Your task to perform on an android device: Go to network settings Image 0: 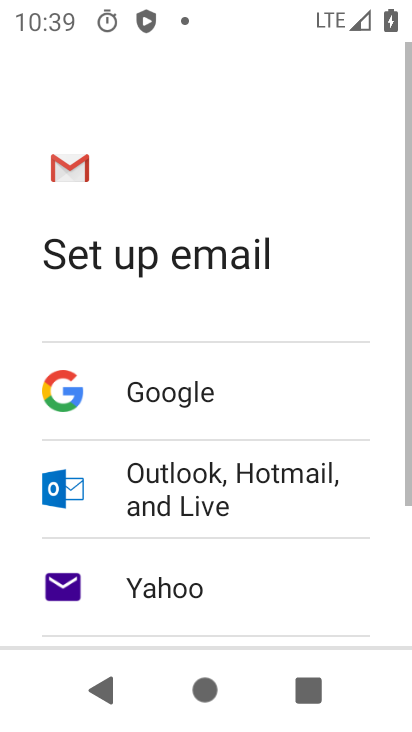
Step 0: press home button
Your task to perform on an android device: Go to network settings Image 1: 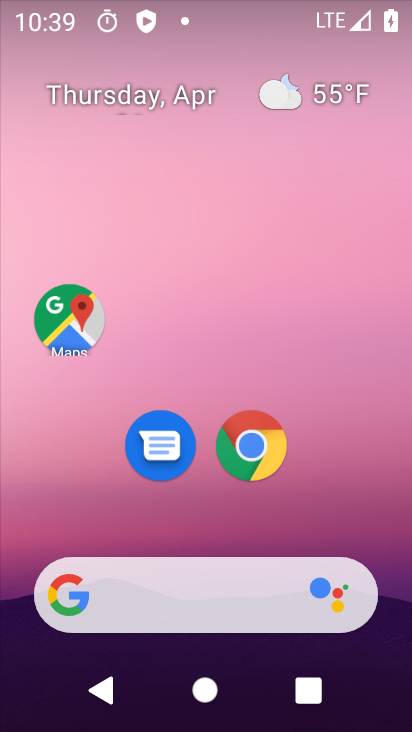
Step 1: drag from (388, 552) to (338, 8)
Your task to perform on an android device: Go to network settings Image 2: 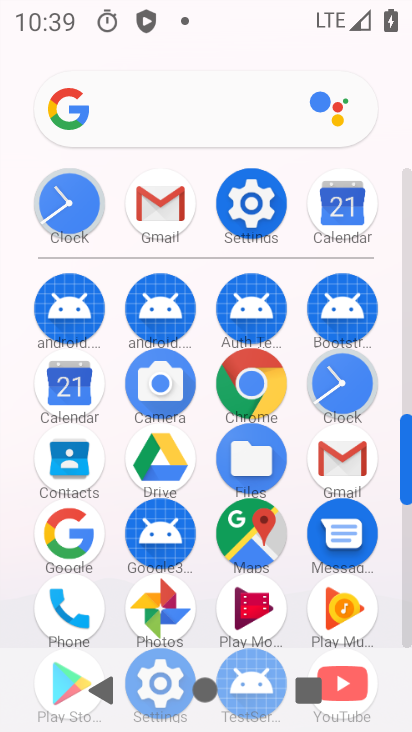
Step 2: click (250, 210)
Your task to perform on an android device: Go to network settings Image 3: 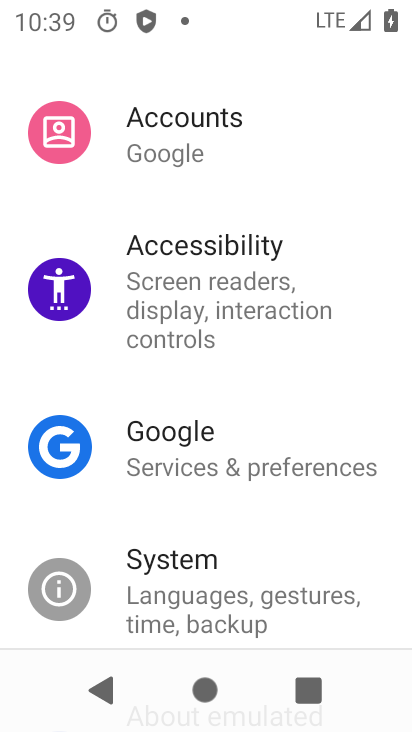
Step 3: drag from (358, 195) to (409, 578)
Your task to perform on an android device: Go to network settings Image 4: 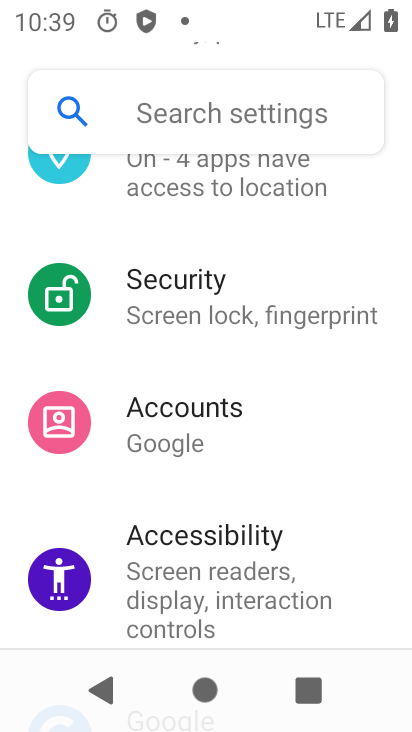
Step 4: drag from (382, 219) to (395, 617)
Your task to perform on an android device: Go to network settings Image 5: 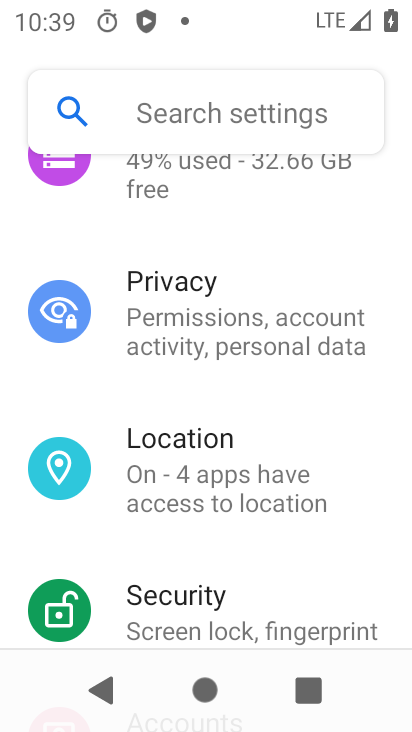
Step 5: drag from (316, 267) to (327, 663)
Your task to perform on an android device: Go to network settings Image 6: 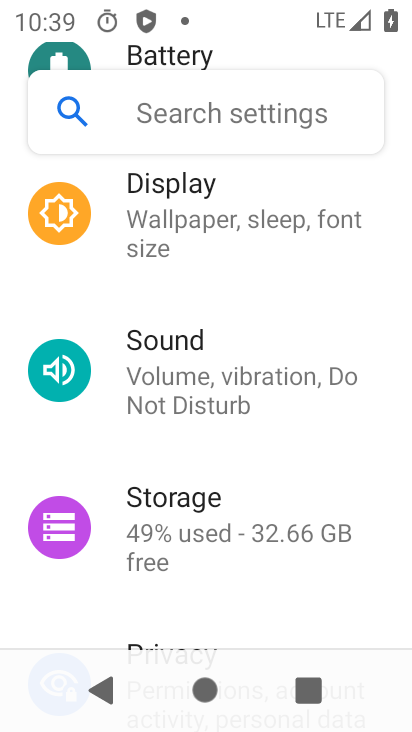
Step 6: drag from (306, 316) to (312, 643)
Your task to perform on an android device: Go to network settings Image 7: 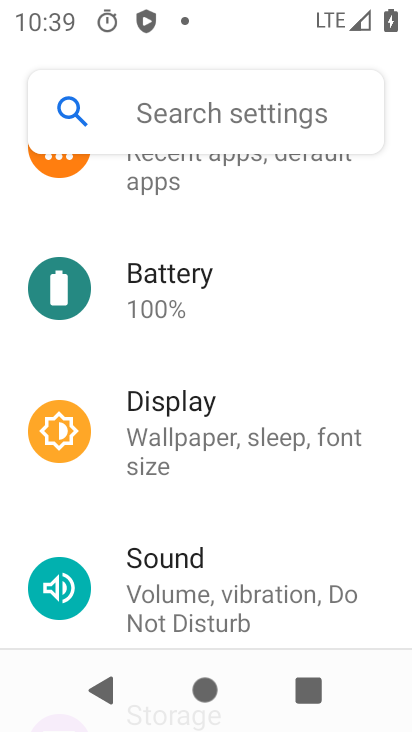
Step 7: drag from (265, 267) to (305, 557)
Your task to perform on an android device: Go to network settings Image 8: 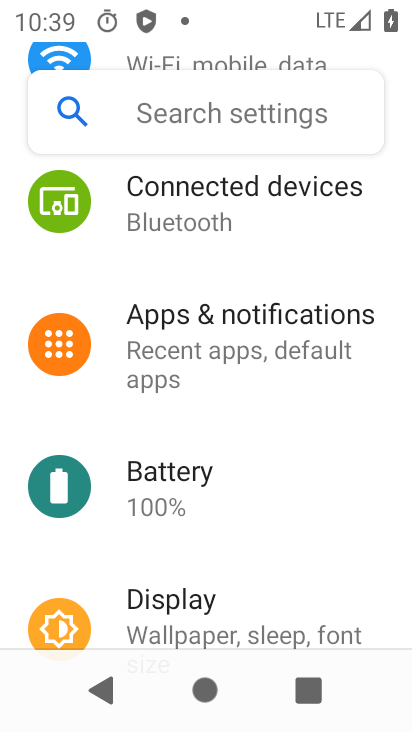
Step 8: drag from (231, 240) to (276, 500)
Your task to perform on an android device: Go to network settings Image 9: 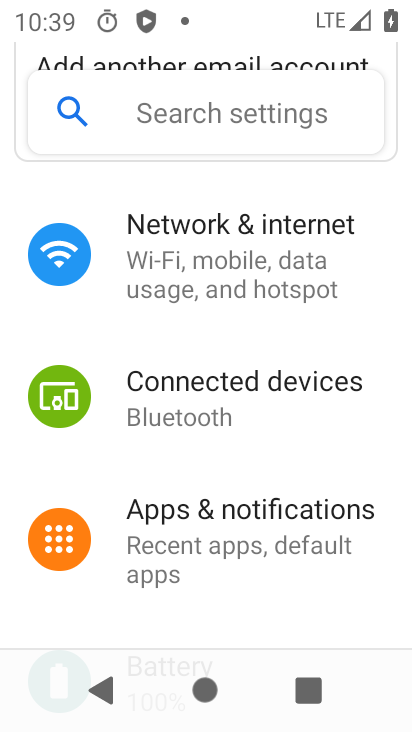
Step 9: click (190, 272)
Your task to perform on an android device: Go to network settings Image 10: 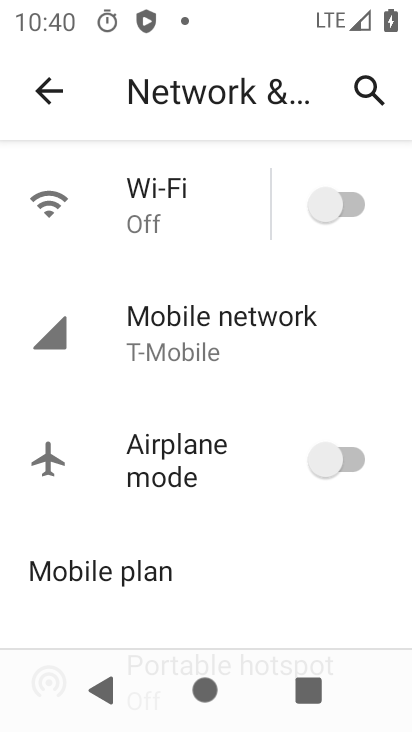
Step 10: task complete